Your task to perform on an android device: toggle sleep mode Image 0: 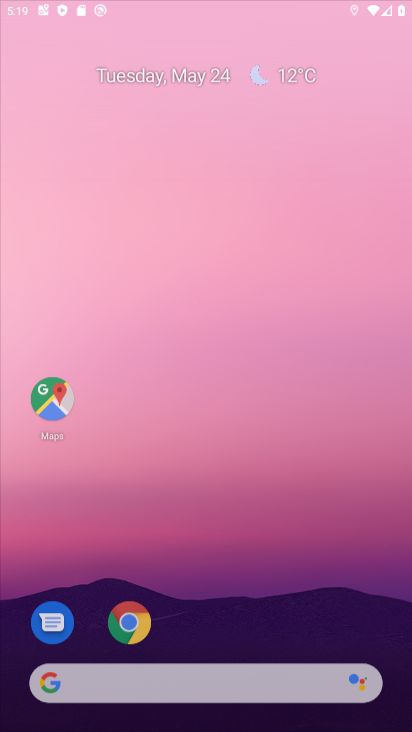
Step 0: click (205, 33)
Your task to perform on an android device: toggle sleep mode Image 1: 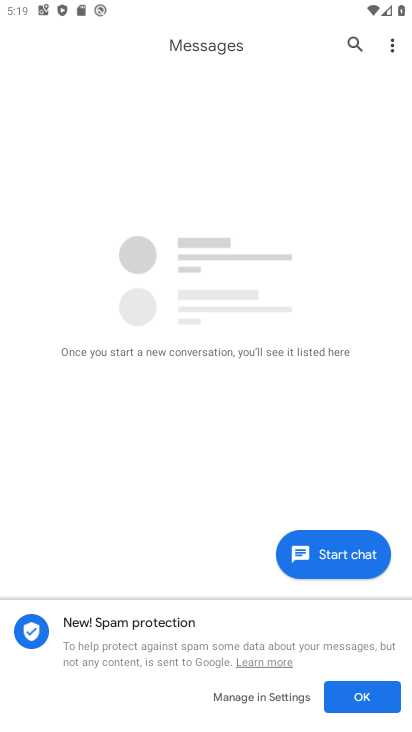
Step 1: press home button
Your task to perform on an android device: toggle sleep mode Image 2: 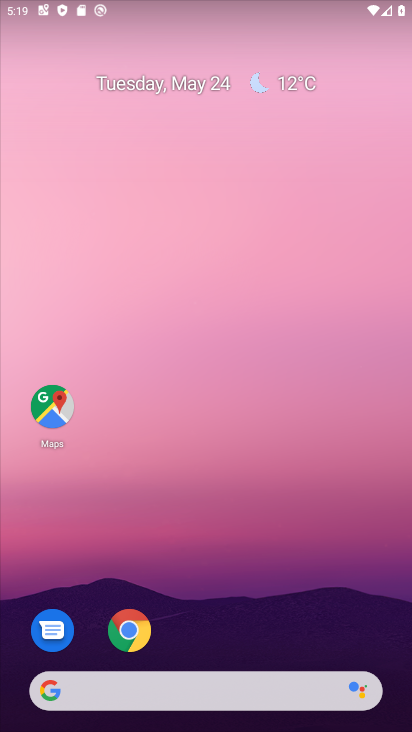
Step 2: drag from (208, 647) to (230, 82)
Your task to perform on an android device: toggle sleep mode Image 3: 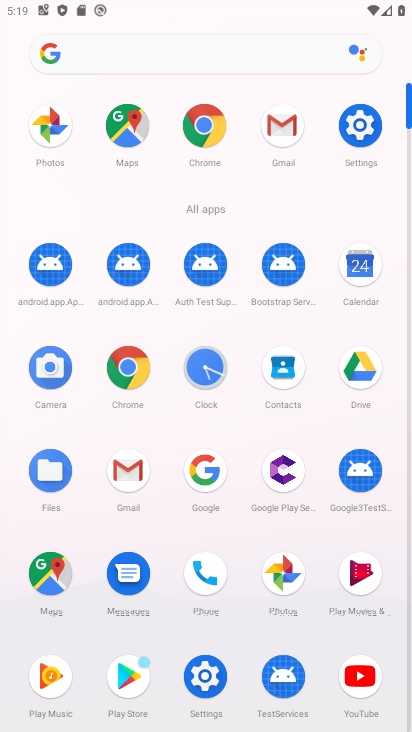
Step 3: click (359, 131)
Your task to perform on an android device: toggle sleep mode Image 4: 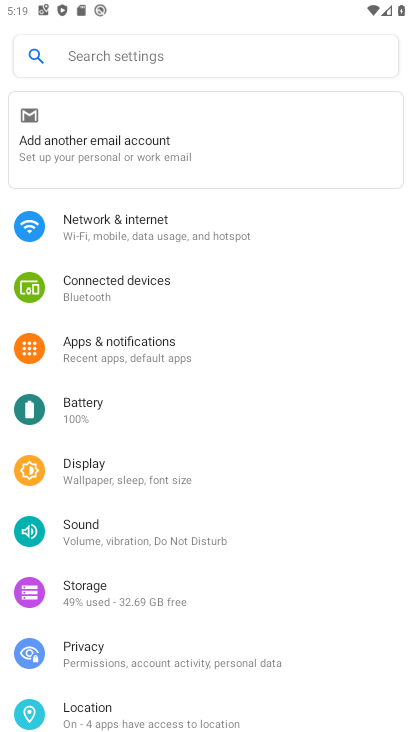
Step 4: press home button
Your task to perform on an android device: toggle sleep mode Image 5: 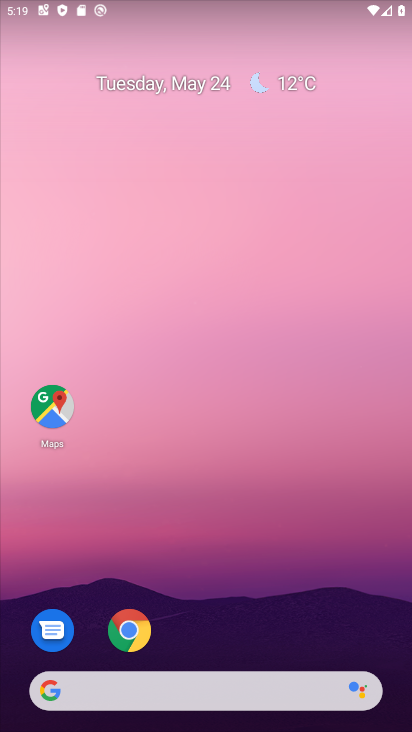
Step 5: drag from (237, 598) to (178, 64)
Your task to perform on an android device: toggle sleep mode Image 6: 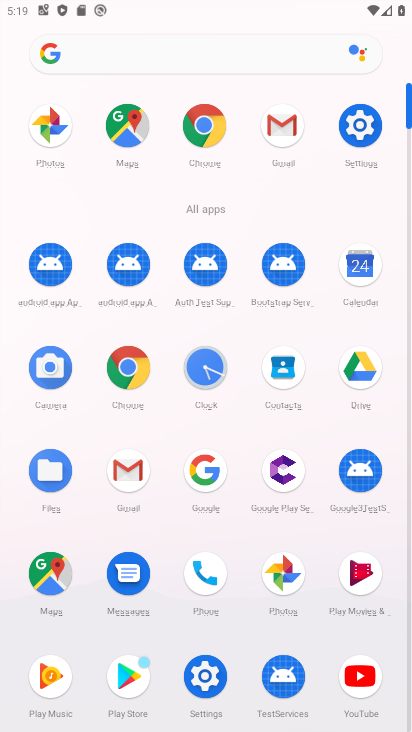
Step 6: click (218, 394)
Your task to perform on an android device: toggle sleep mode Image 7: 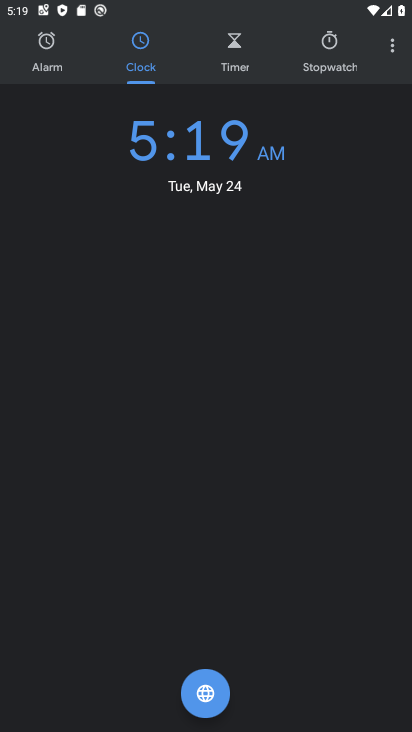
Step 7: click (398, 53)
Your task to perform on an android device: toggle sleep mode Image 8: 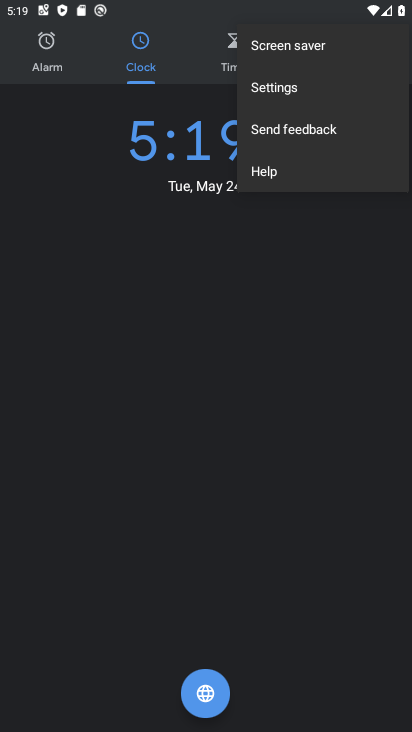
Step 8: click (289, 88)
Your task to perform on an android device: toggle sleep mode Image 9: 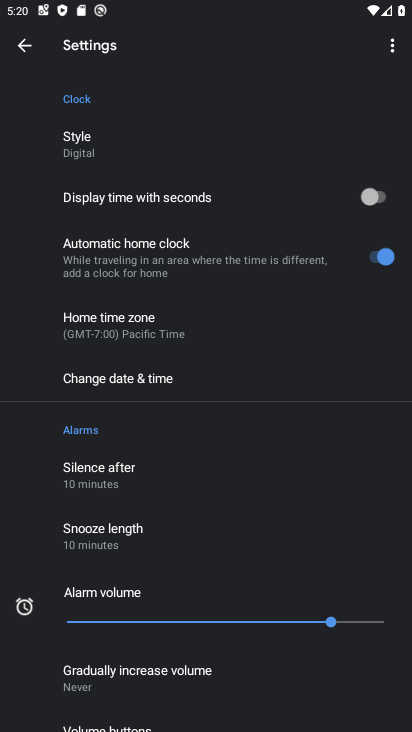
Step 9: task complete